Your task to perform on an android device: check data usage Image 0: 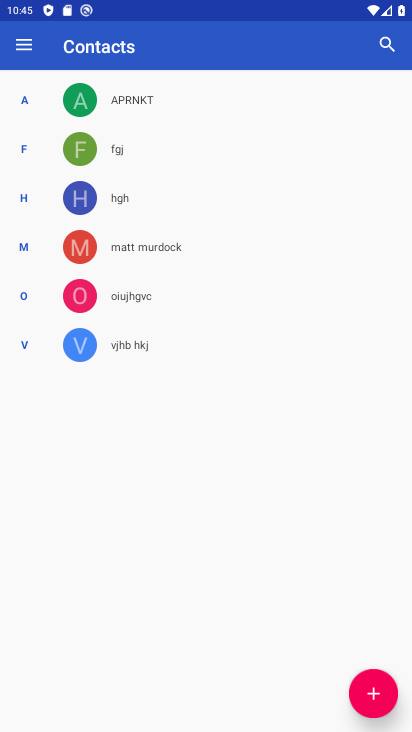
Step 0: press home button
Your task to perform on an android device: check data usage Image 1: 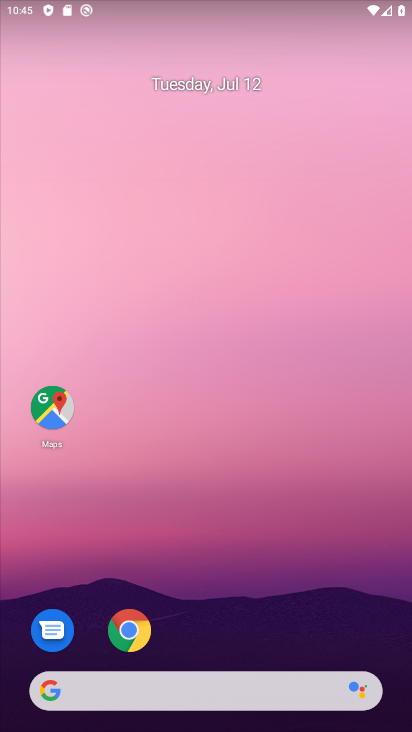
Step 1: drag from (391, 640) to (223, 4)
Your task to perform on an android device: check data usage Image 2: 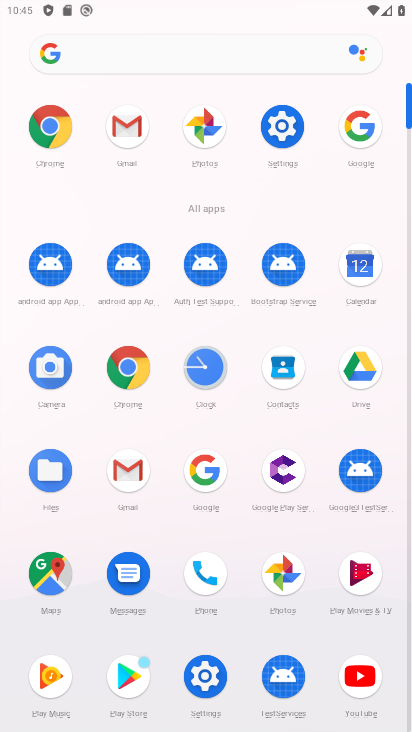
Step 2: click (190, 680)
Your task to perform on an android device: check data usage Image 3: 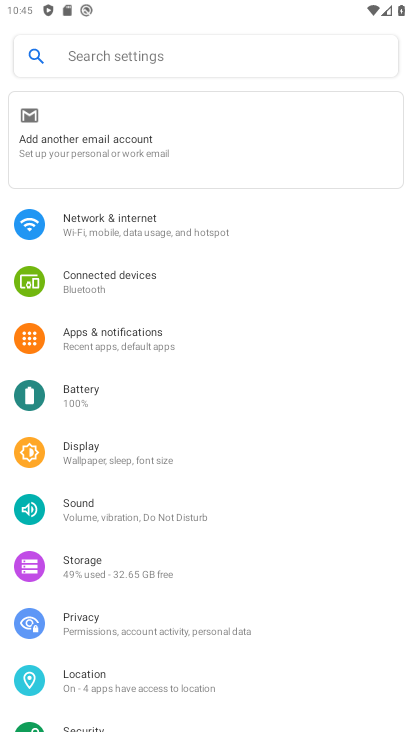
Step 3: click (163, 240)
Your task to perform on an android device: check data usage Image 4: 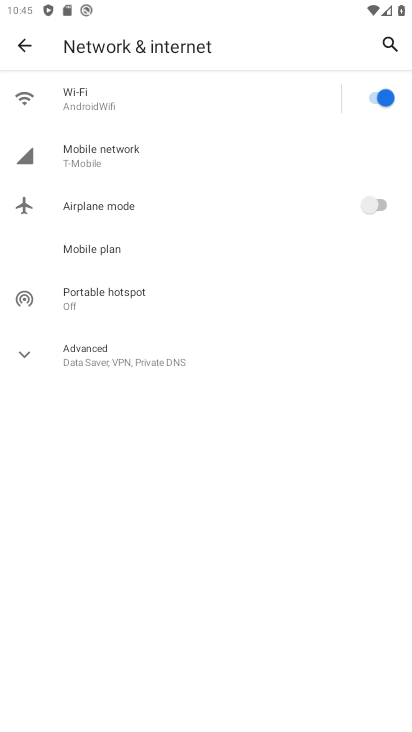
Step 4: click (121, 160)
Your task to perform on an android device: check data usage Image 5: 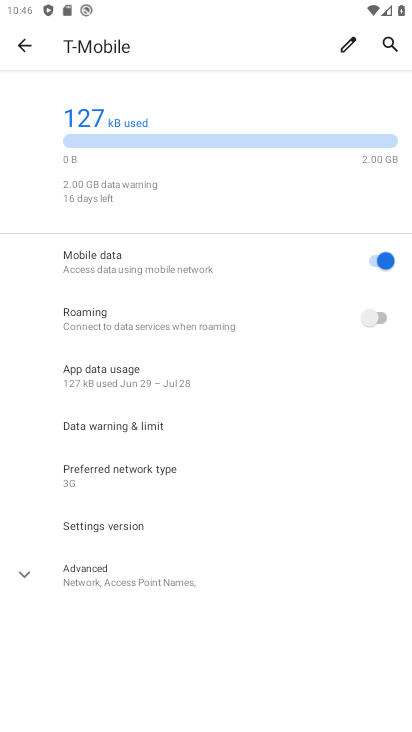
Step 5: click (125, 381)
Your task to perform on an android device: check data usage Image 6: 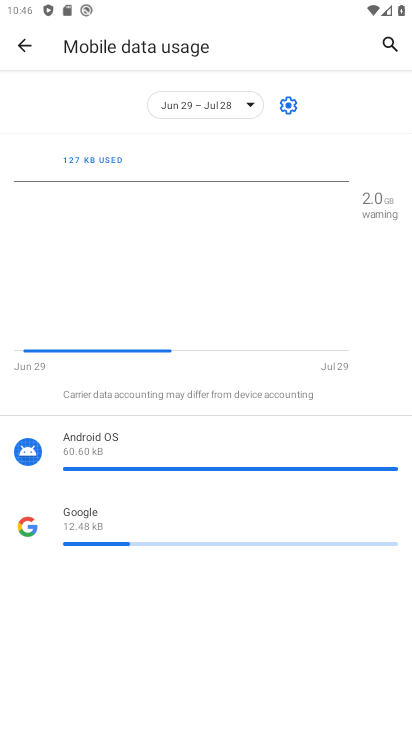
Step 6: task complete